Your task to perform on an android device: Go to accessibility settings Image 0: 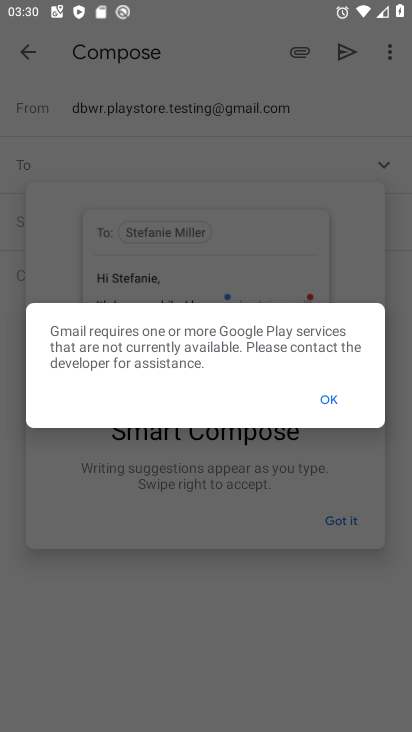
Step 0: press home button
Your task to perform on an android device: Go to accessibility settings Image 1: 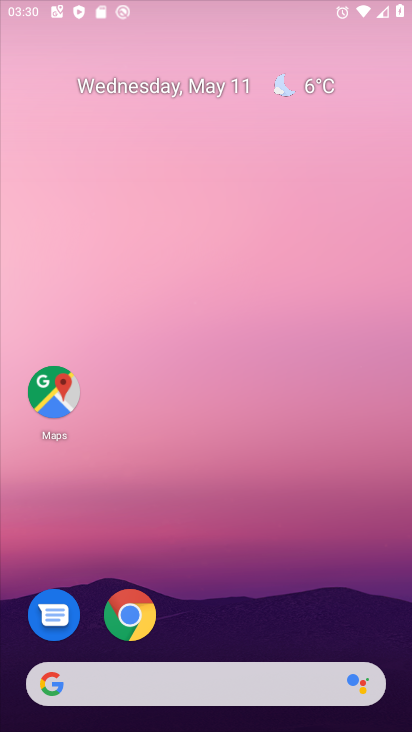
Step 1: drag from (244, 620) to (300, 48)
Your task to perform on an android device: Go to accessibility settings Image 2: 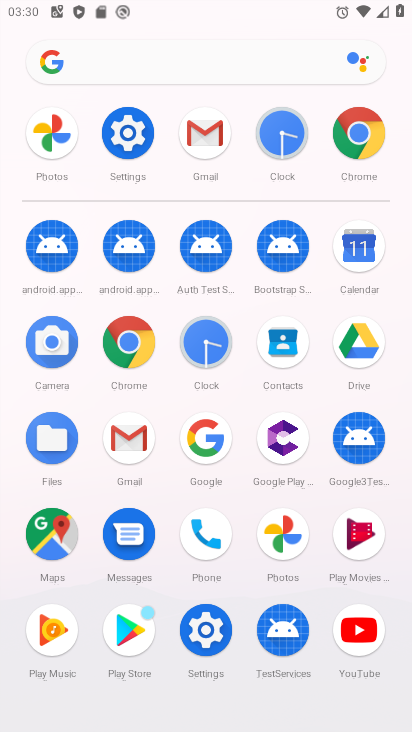
Step 2: click (126, 131)
Your task to perform on an android device: Go to accessibility settings Image 3: 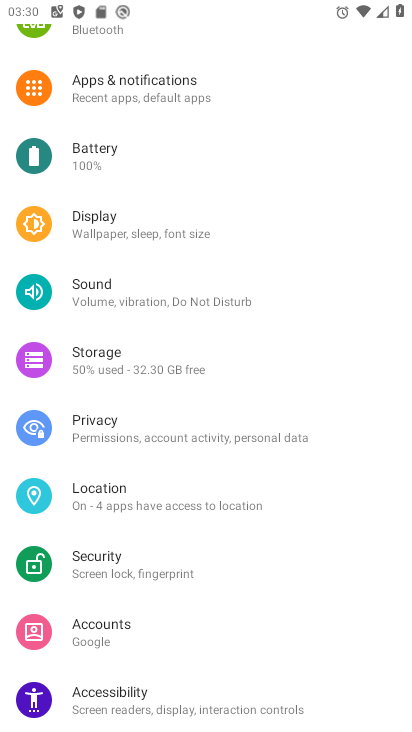
Step 3: drag from (211, 598) to (272, 149)
Your task to perform on an android device: Go to accessibility settings Image 4: 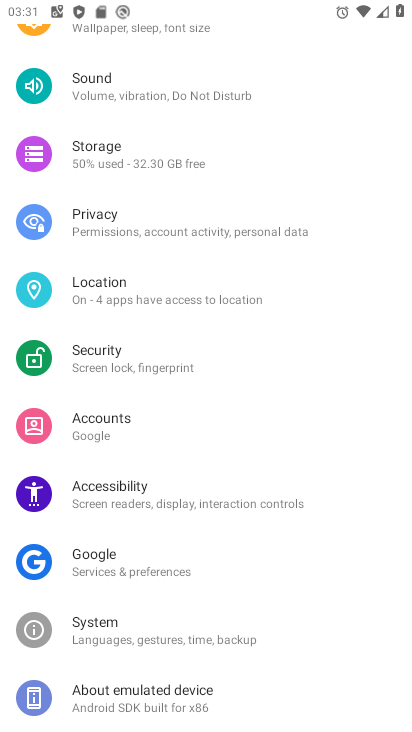
Step 4: click (144, 494)
Your task to perform on an android device: Go to accessibility settings Image 5: 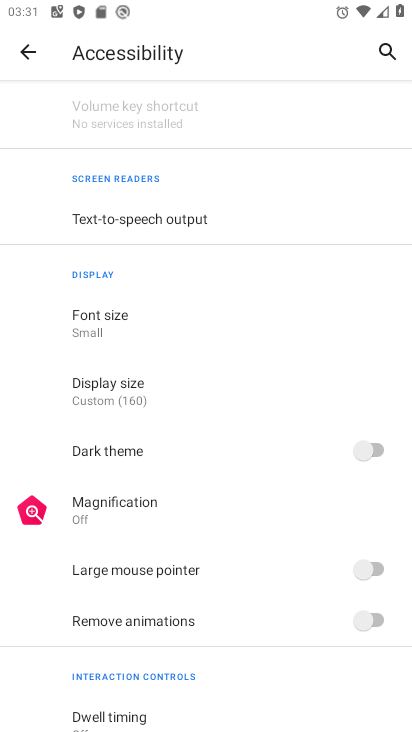
Step 5: task complete